Your task to perform on an android device: delete the emails in spam in the gmail app Image 0: 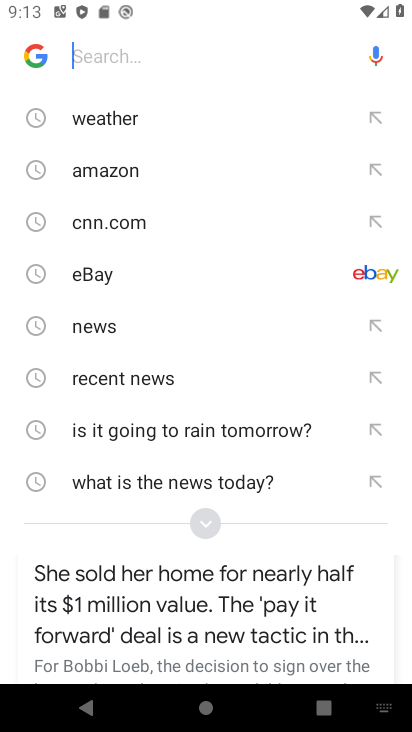
Step 0: press home button
Your task to perform on an android device: delete the emails in spam in the gmail app Image 1: 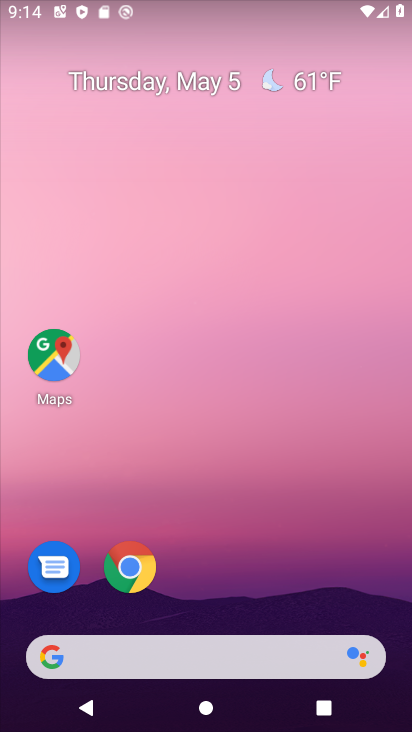
Step 1: drag from (302, 544) to (288, 52)
Your task to perform on an android device: delete the emails in spam in the gmail app Image 2: 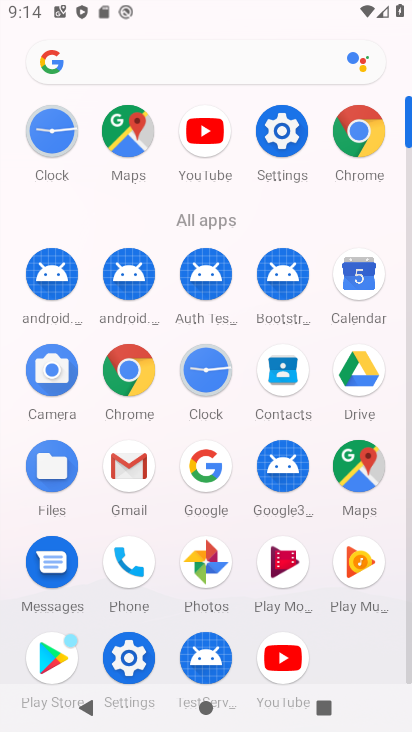
Step 2: click (123, 457)
Your task to perform on an android device: delete the emails in spam in the gmail app Image 3: 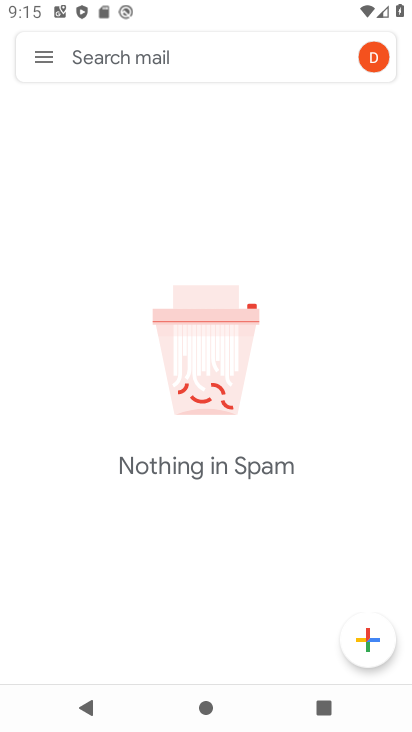
Step 3: task complete